Your task to perform on an android device: Open privacy settings Image 0: 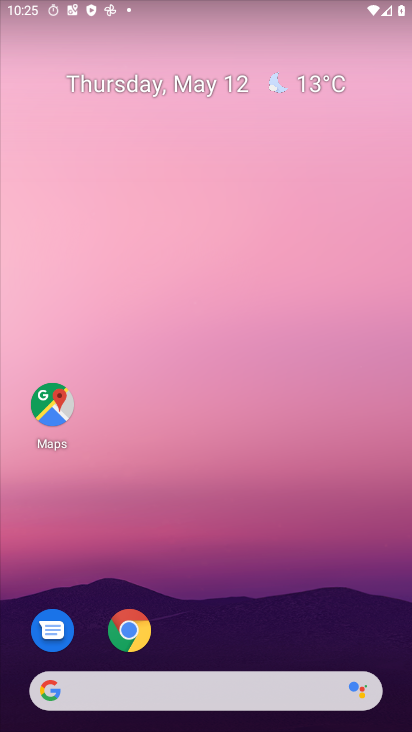
Step 0: drag from (171, 686) to (182, 243)
Your task to perform on an android device: Open privacy settings Image 1: 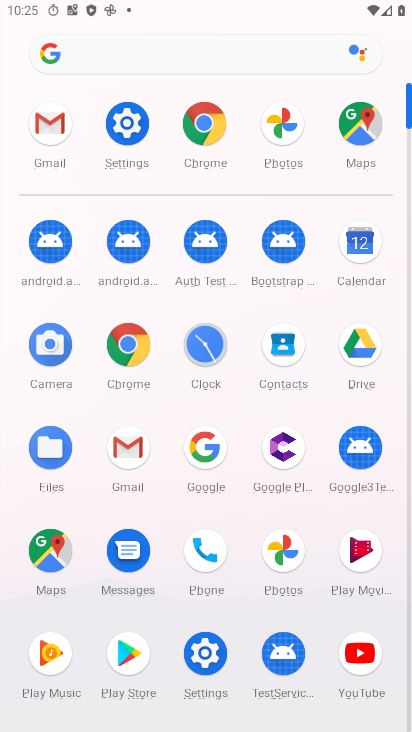
Step 1: click (213, 662)
Your task to perform on an android device: Open privacy settings Image 2: 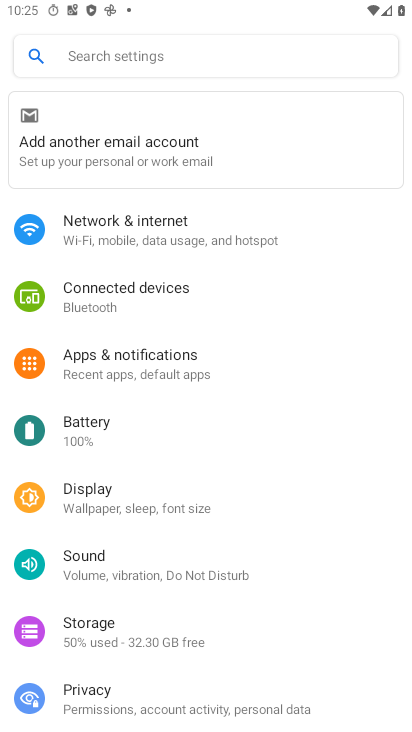
Step 2: drag from (124, 572) to (105, 202)
Your task to perform on an android device: Open privacy settings Image 3: 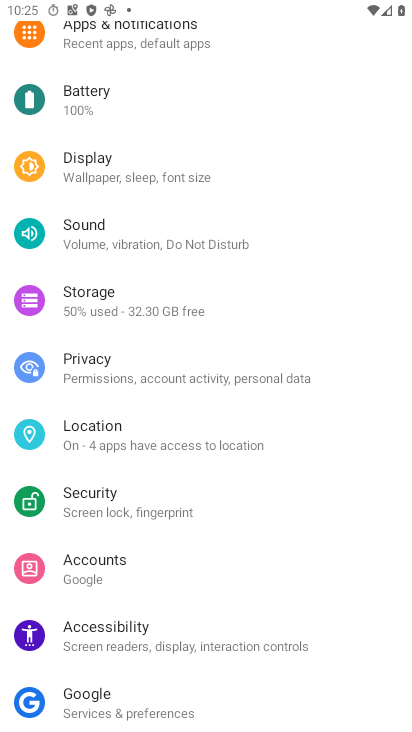
Step 3: click (95, 377)
Your task to perform on an android device: Open privacy settings Image 4: 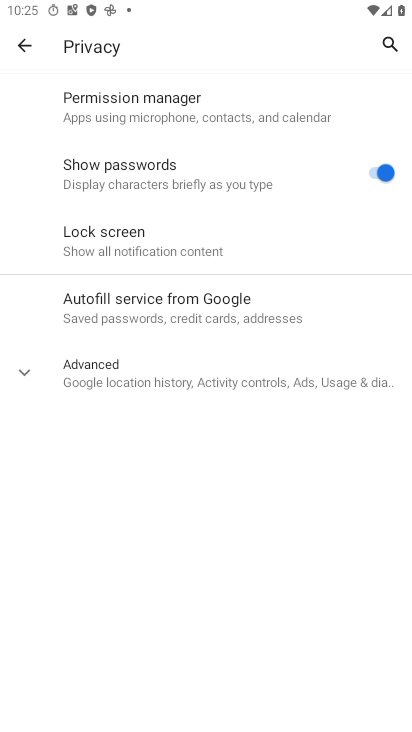
Step 4: task complete